Your task to perform on an android device: change your default location settings in chrome Image 0: 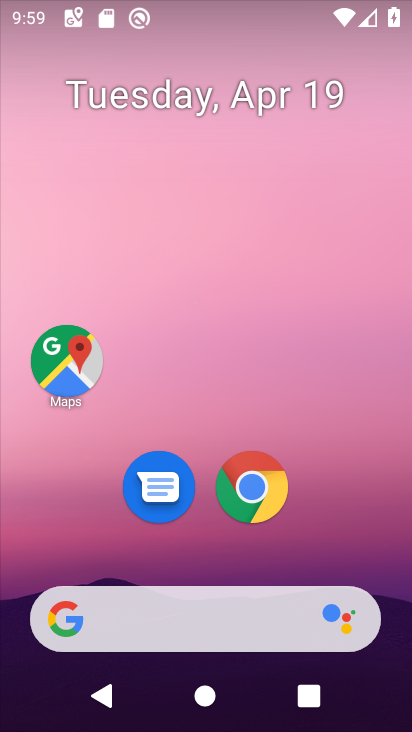
Step 0: drag from (335, 486) to (256, 31)
Your task to perform on an android device: change your default location settings in chrome Image 1: 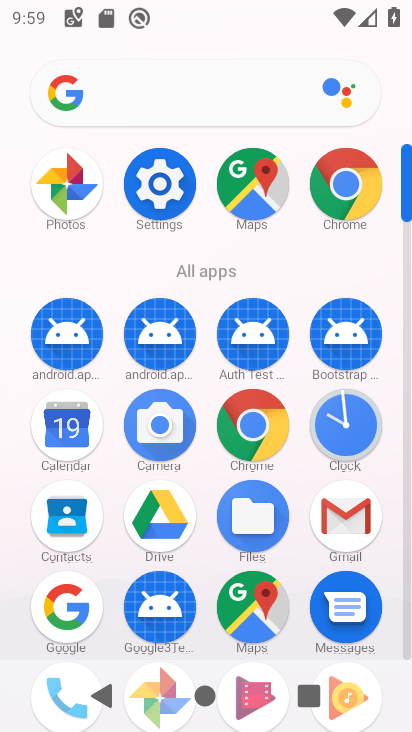
Step 1: drag from (4, 383) to (10, 187)
Your task to perform on an android device: change your default location settings in chrome Image 2: 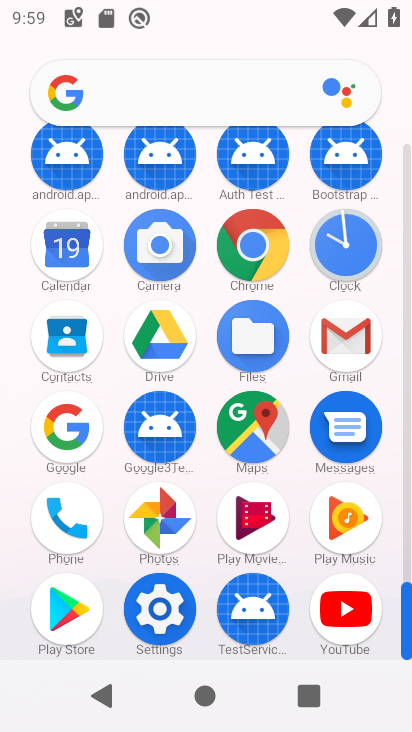
Step 2: click (255, 248)
Your task to perform on an android device: change your default location settings in chrome Image 3: 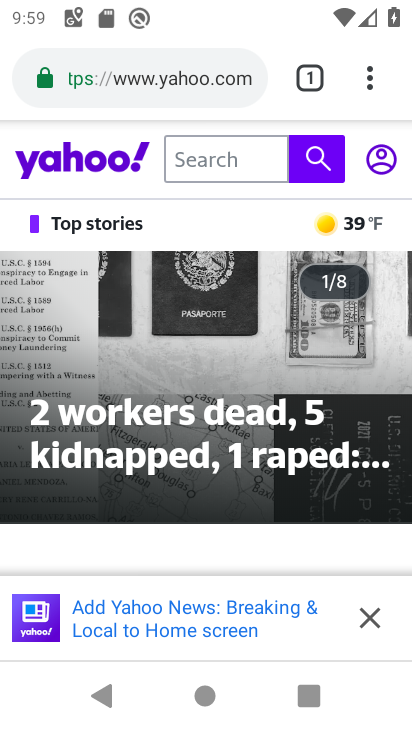
Step 3: drag from (367, 87) to (111, 538)
Your task to perform on an android device: change your default location settings in chrome Image 4: 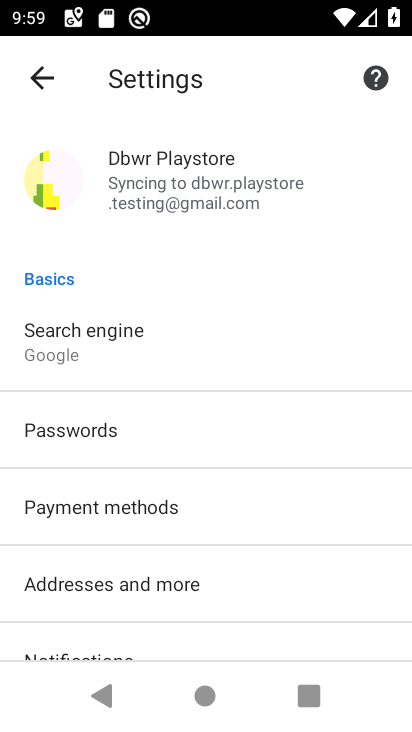
Step 4: drag from (199, 577) to (249, 221)
Your task to perform on an android device: change your default location settings in chrome Image 5: 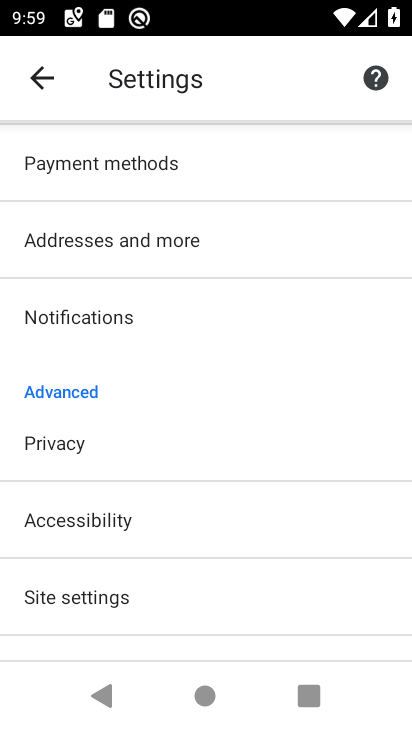
Step 5: drag from (239, 494) to (241, 215)
Your task to perform on an android device: change your default location settings in chrome Image 6: 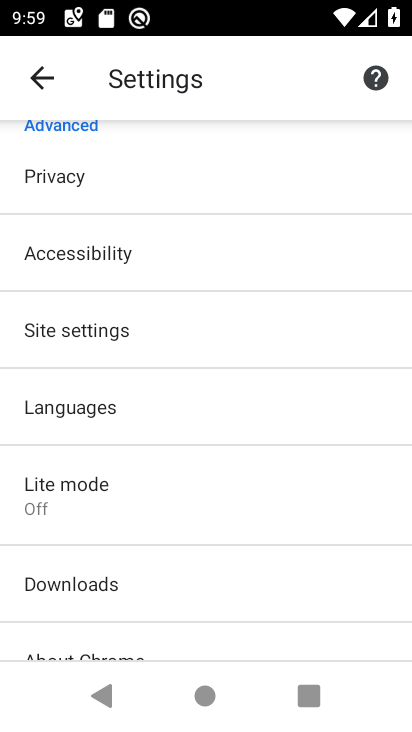
Step 6: click (131, 320)
Your task to perform on an android device: change your default location settings in chrome Image 7: 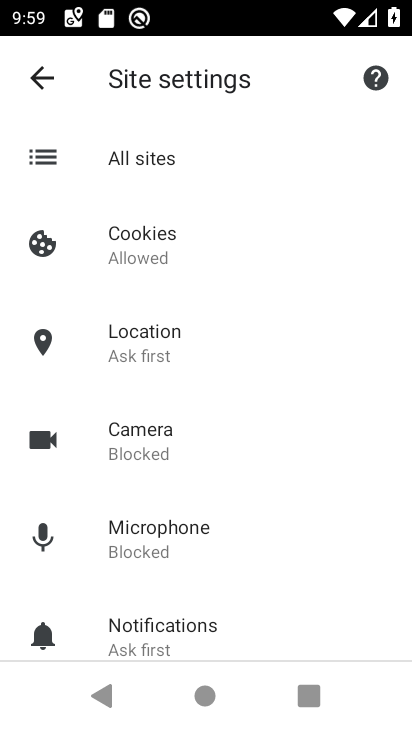
Step 7: drag from (243, 509) to (232, 171)
Your task to perform on an android device: change your default location settings in chrome Image 8: 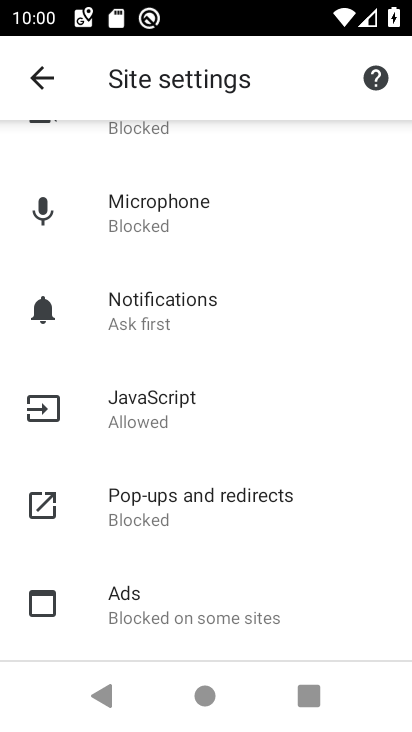
Step 8: drag from (302, 474) to (288, 224)
Your task to perform on an android device: change your default location settings in chrome Image 9: 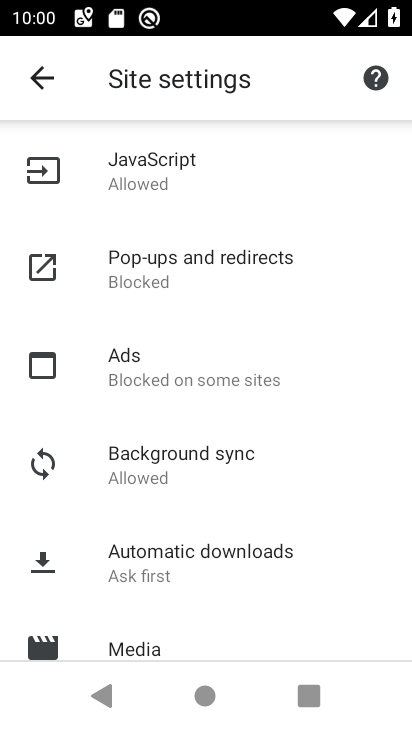
Step 9: drag from (274, 468) to (282, 212)
Your task to perform on an android device: change your default location settings in chrome Image 10: 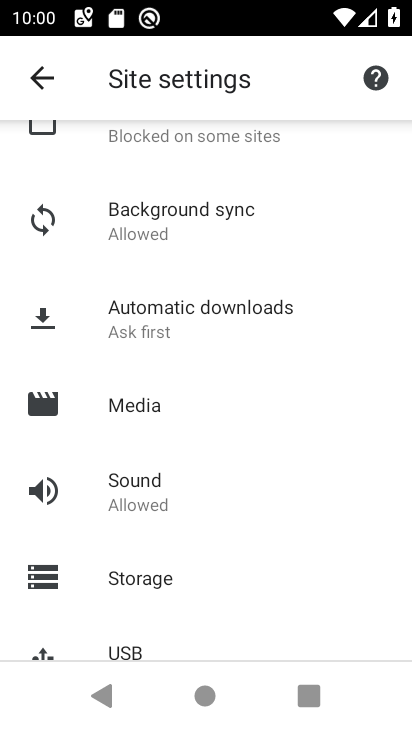
Step 10: drag from (276, 475) to (298, 203)
Your task to perform on an android device: change your default location settings in chrome Image 11: 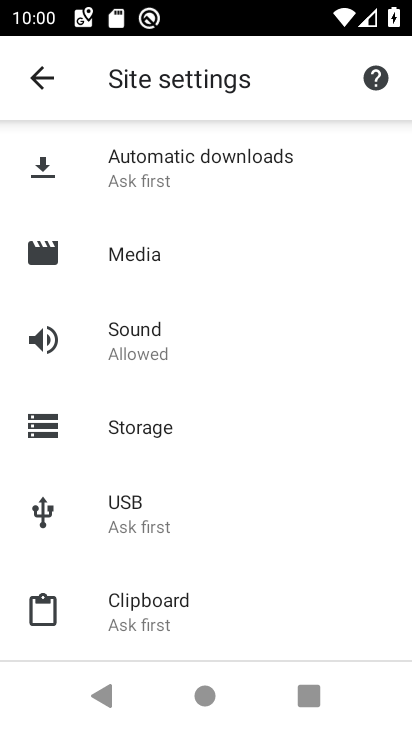
Step 11: drag from (242, 432) to (244, 196)
Your task to perform on an android device: change your default location settings in chrome Image 12: 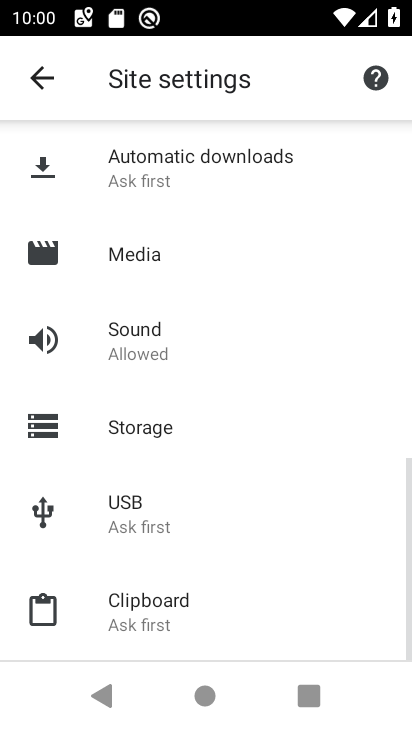
Step 12: drag from (247, 496) to (267, 321)
Your task to perform on an android device: change your default location settings in chrome Image 13: 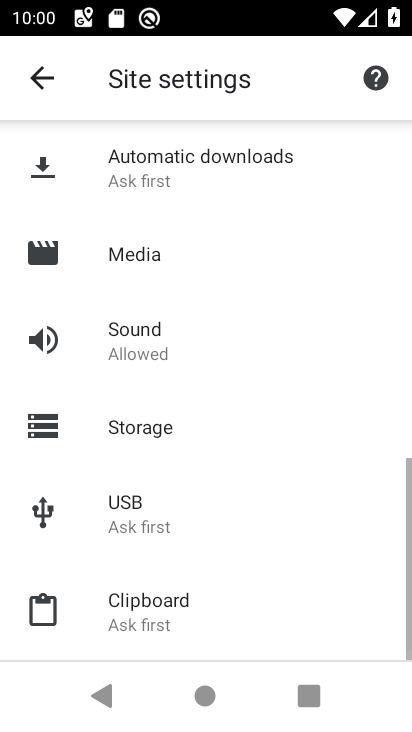
Step 13: drag from (280, 244) to (257, 544)
Your task to perform on an android device: change your default location settings in chrome Image 14: 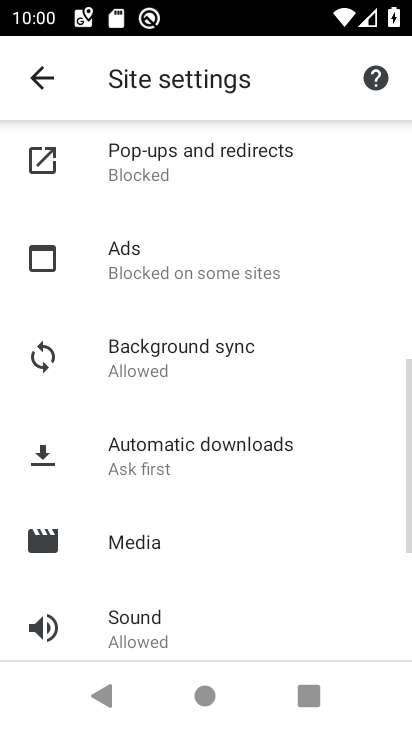
Step 14: drag from (251, 357) to (246, 556)
Your task to perform on an android device: change your default location settings in chrome Image 15: 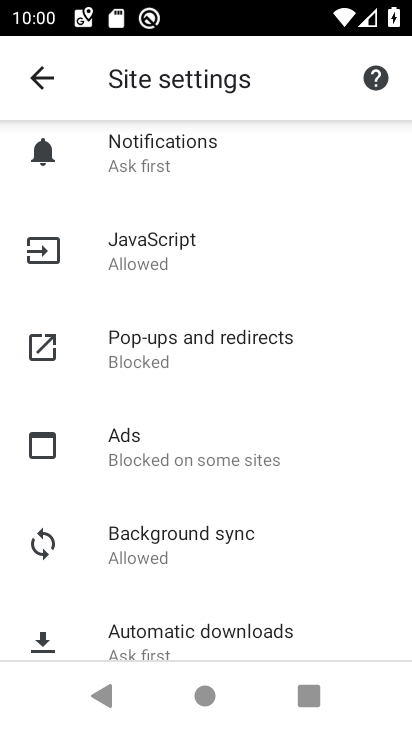
Step 15: drag from (261, 196) to (245, 516)
Your task to perform on an android device: change your default location settings in chrome Image 16: 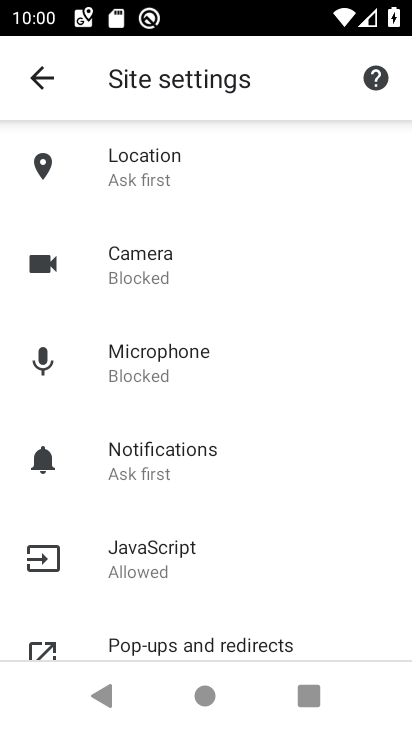
Step 16: drag from (223, 228) to (230, 508)
Your task to perform on an android device: change your default location settings in chrome Image 17: 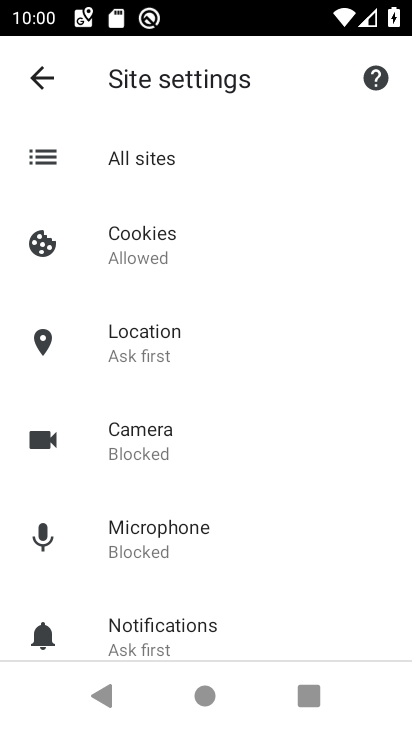
Step 17: click (207, 357)
Your task to perform on an android device: change your default location settings in chrome Image 18: 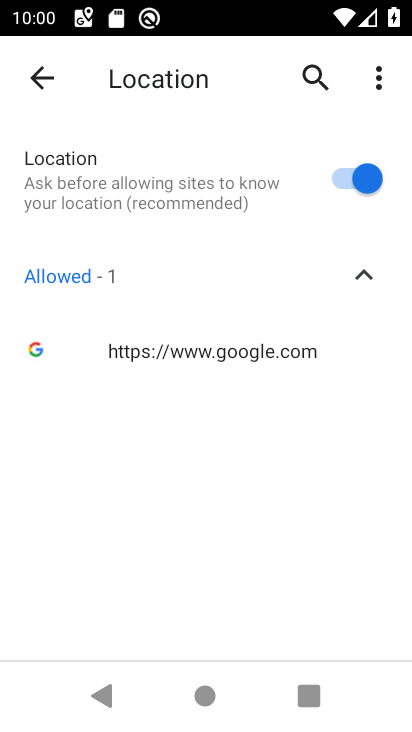
Step 18: click (340, 188)
Your task to perform on an android device: change your default location settings in chrome Image 19: 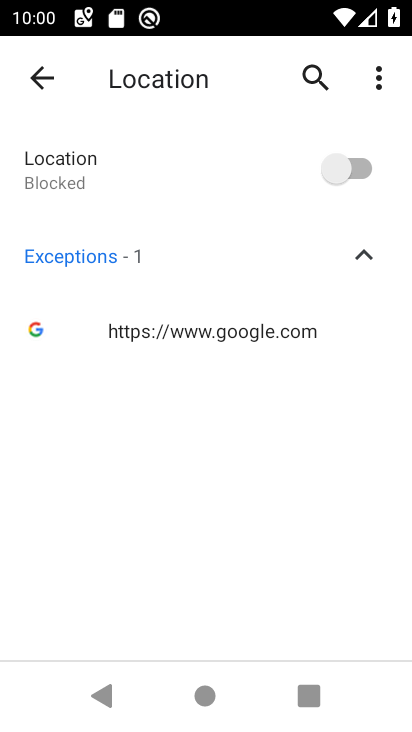
Step 19: task complete